Your task to perform on an android device: Open Chrome and go to settings Image 0: 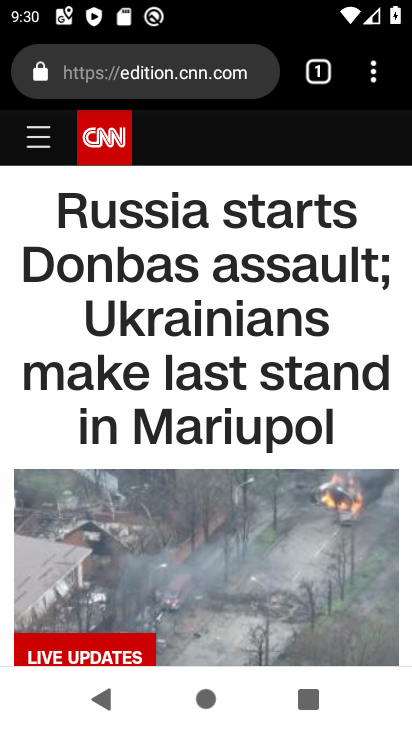
Step 0: click (361, 68)
Your task to perform on an android device: Open Chrome and go to settings Image 1: 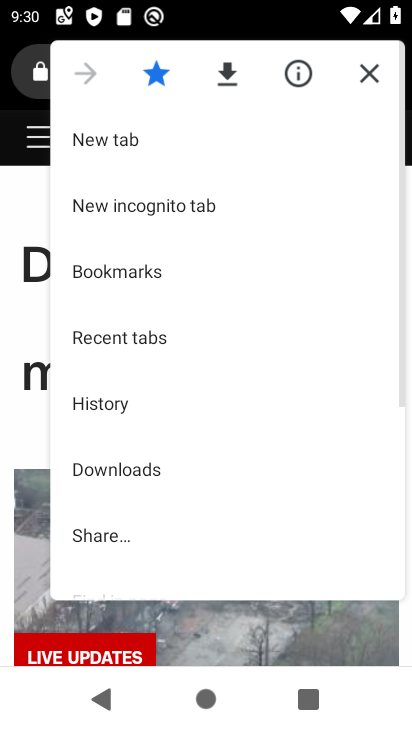
Step 1: drag from (242, 438) to (215, 193)
Your task to perform on an android device: Open Chrome and go to settings Image 2: 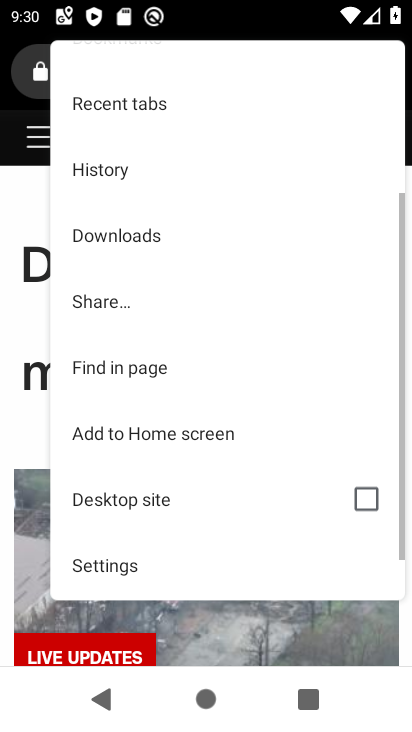
Step 2: click (115, 568)
Your task to perform on an android device: Open Chrome and go to settings Image 3: 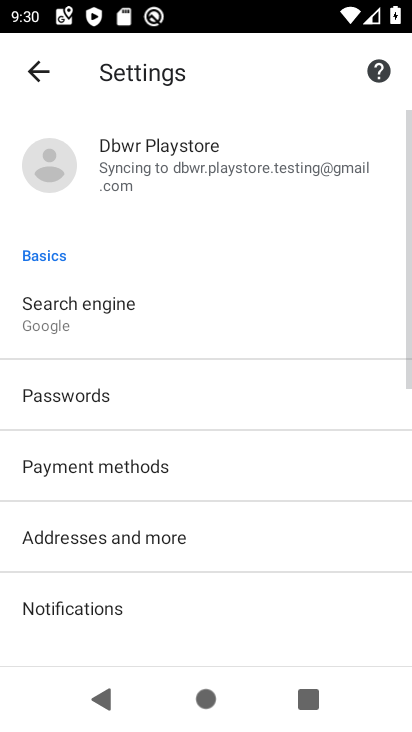
Step 3: task complete